Your task to perform on an android device: toggle javascript in the chrome app Image 0: 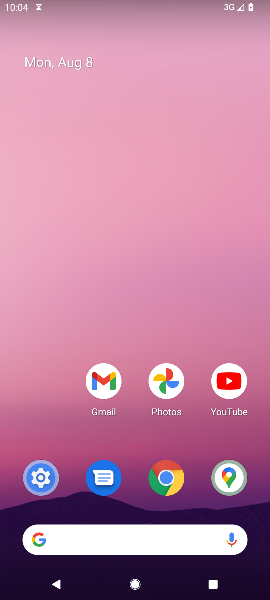
Step 0: click (164, 475)
Your task to perform on an android device: toggle javascript in the chrome app Image 1: 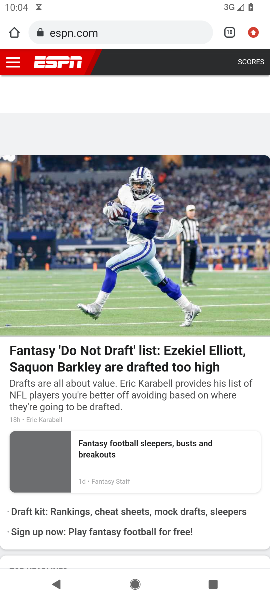
Step 1: drag from (256, 35) to (194, 442)
Your task to perform on an android device: toggle javascript in the chrome app Image 2: 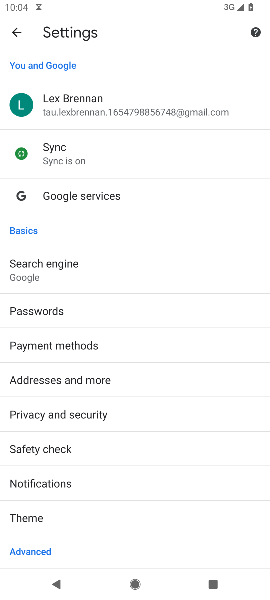
Step 2: drag from (121, 501) to (209, 247)
Your task to perform on an android device: toggle javascript in the chrome app Image 3: 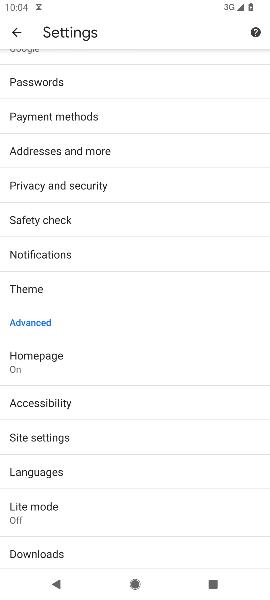
Step 3: click (55, 440)
Your task to perform on an android device: toggle javascript in the chrome app Image 4: 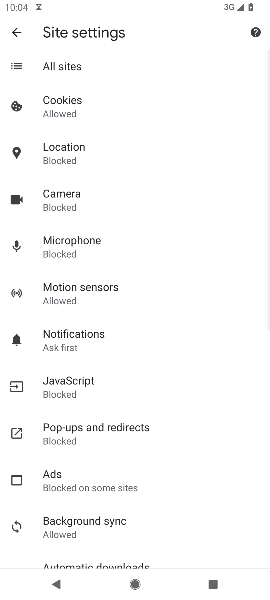
Step 4: click (83, 390)
Your task to perform on an android device: toggle javascript in the chrome app Image 5: 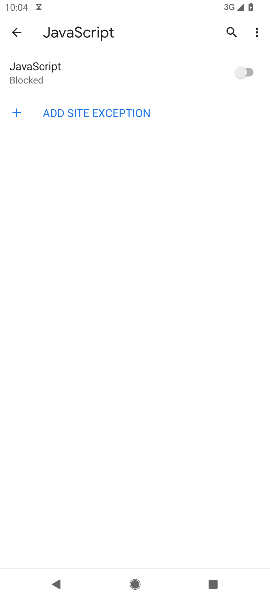
Step 5: click (245, 69)
Your task to perform on an android device: toggle javascript in the chrome app Image 6: 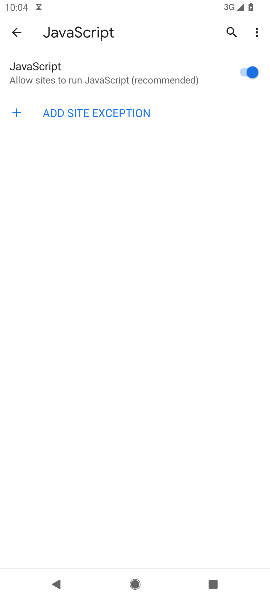
Step 6: task complete